Your task to perform on an android device: What's the weather going to be tomorrow? Image 0: 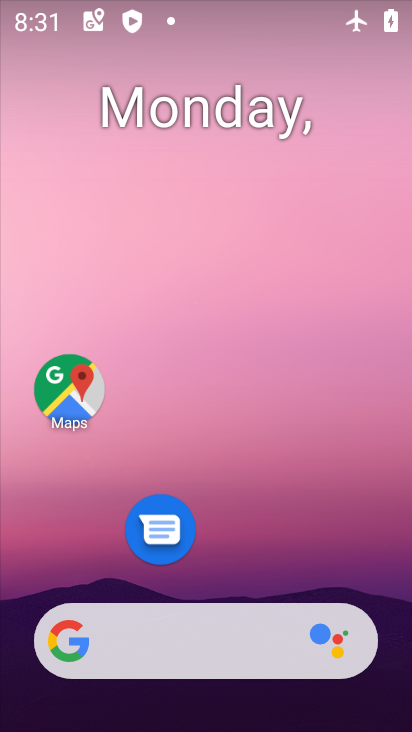
Step 0: drag from (244, 547) to (281, 111)
Your task to perform on an android device: What's the weather going to be tomorrow? Image 1: 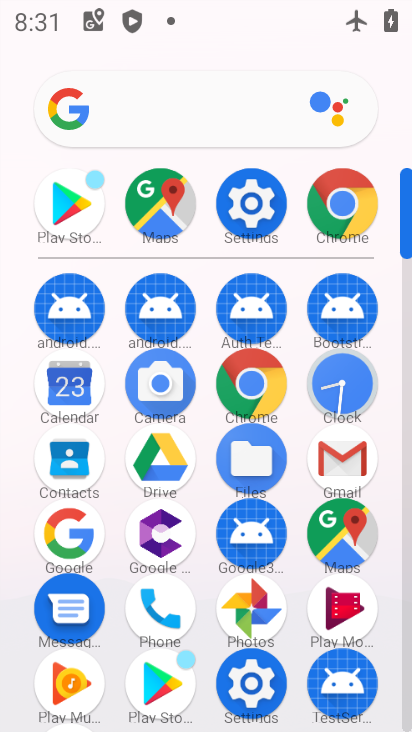
Step 1: click (48, 543)
Your task to perform on an android device: What's the weather going to be tomorrow? Image 2: 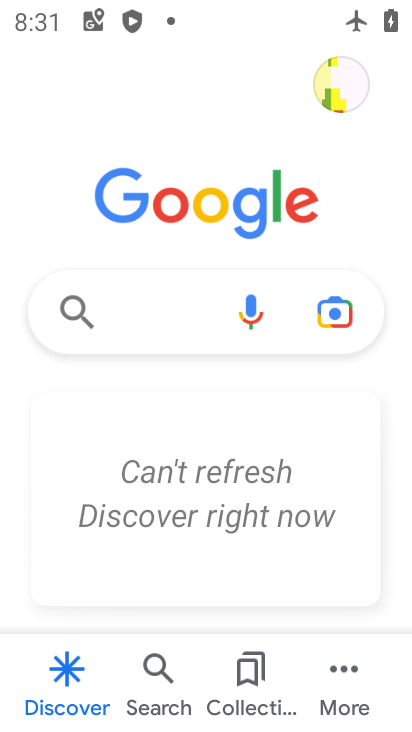
Step 2: click (170, 335)
Your task to perform on an android device: What's the weather going to be tomorrow? Image 3: 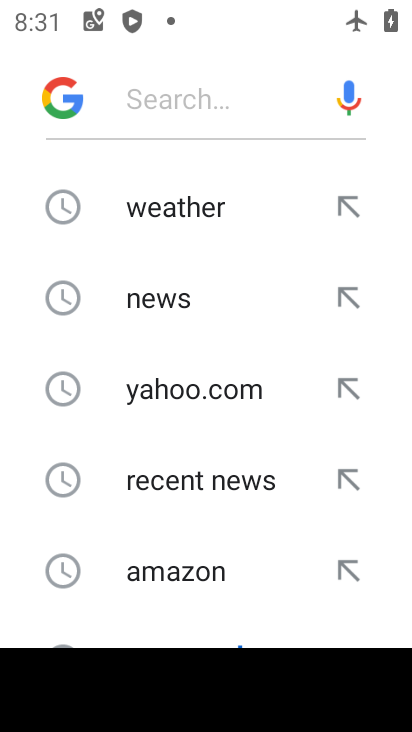
Step 3: click (159, 217)
Your task to perform on an android device: What's the weather going to be tomorrow? Image 4: 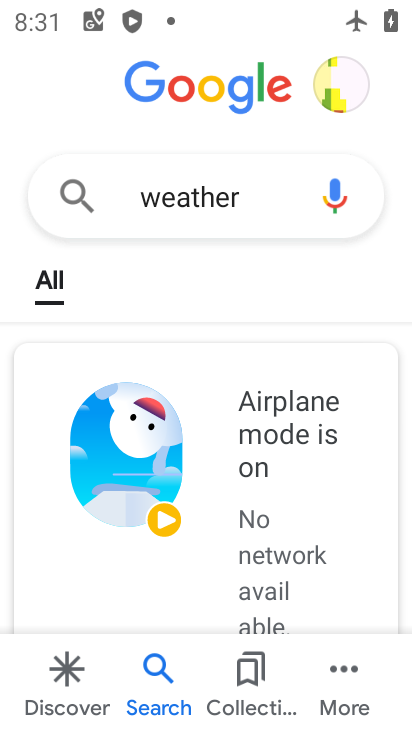
Step 4: task complete